Your task to perform on an android device: What's the weather today? Image 0: 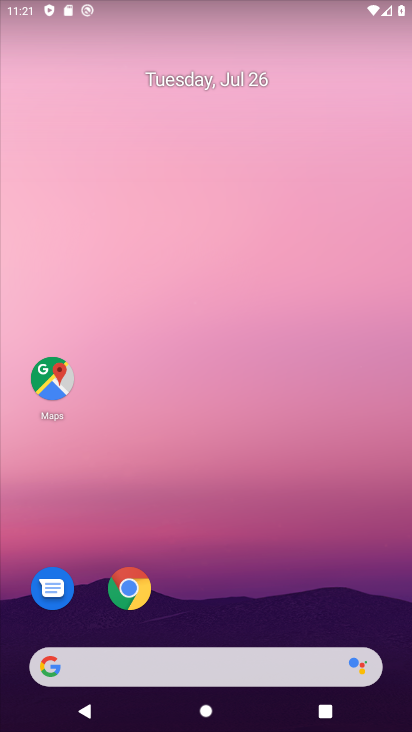
Step 0: click (124, 666)
Your task to perform on an android device: What's the weather today? Image 1: 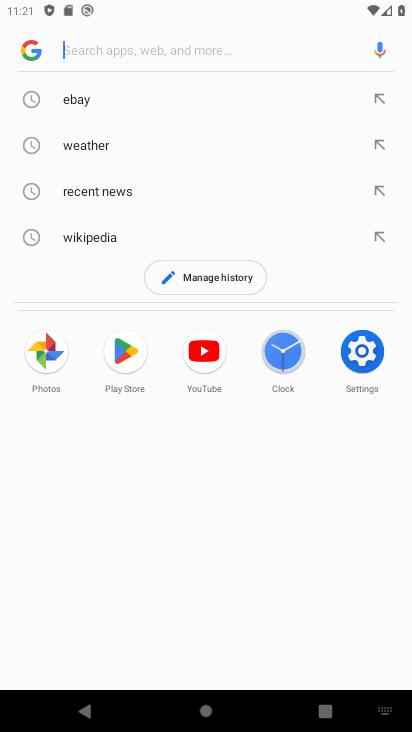
Step 1: type "What's the weather today?"
Your task to perform on an android device: What's the weather today? Image 2: 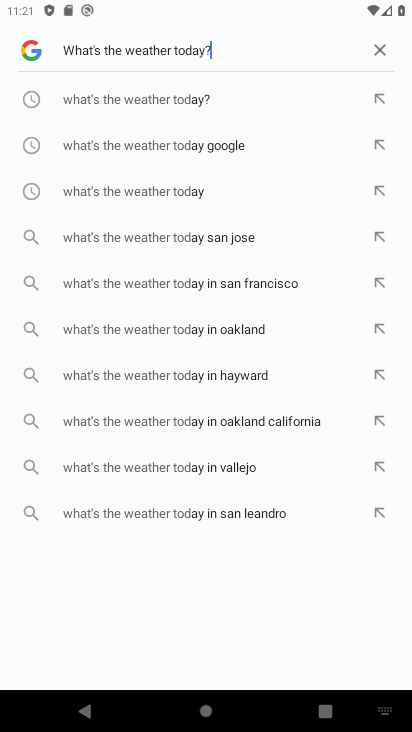
Step 2: type ""
Your task to perform on an android device: What's the weather today? Image 3: 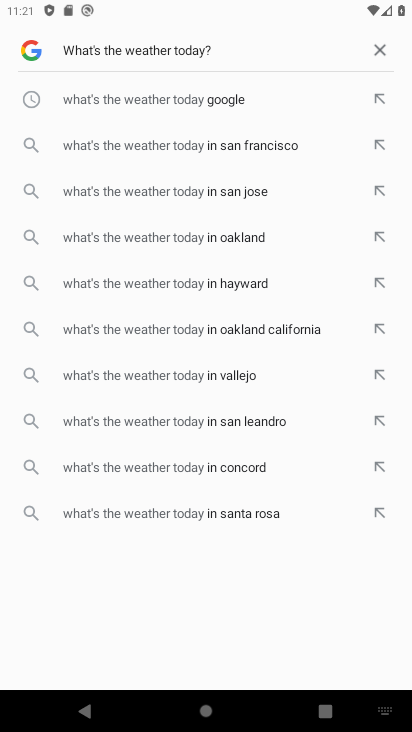
Step 3: type ""
Your task to perform on an android device: What's the weather today? Image 4: 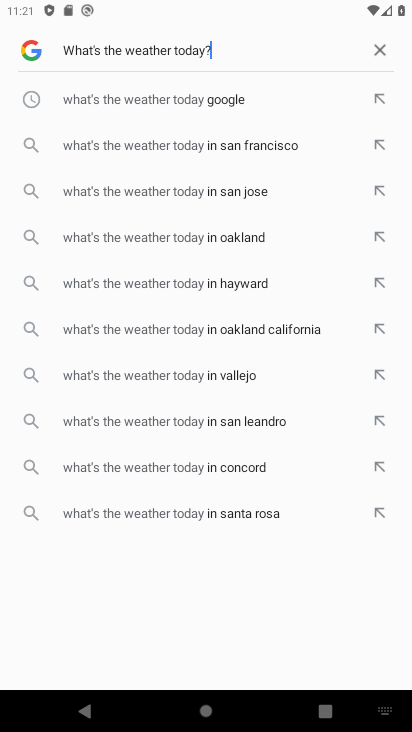
Step 4: type ""
Your task to perform on an android device: What's the weather today? Image 5: 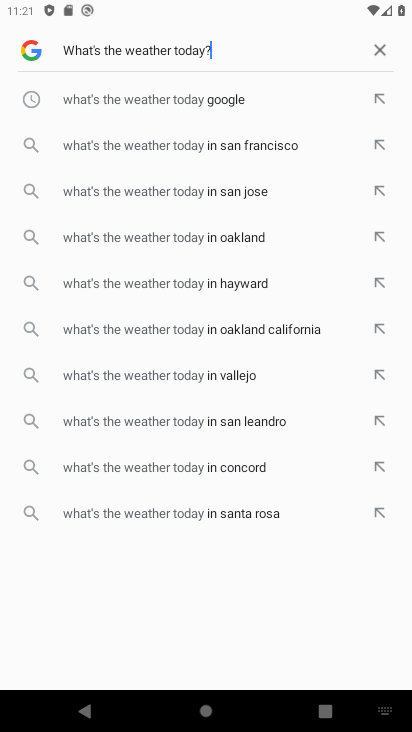
Step 5: task complete